Your task to perform on an android device: Search for Mexican restaurants on Maps Image 0: 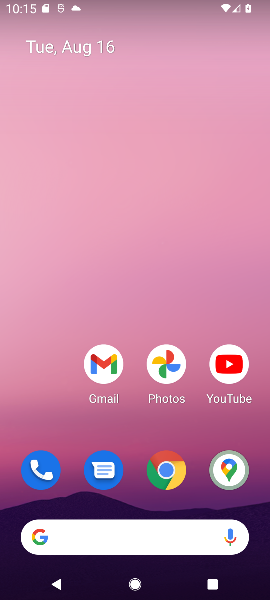
Step 0: drag from (59, 388) to (129, 16)
Your task to perform on an android device: Search for Mexican restaurants on Maps Image 1: 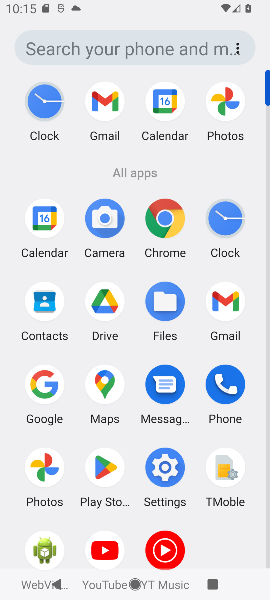
Step 1: click (102, 381)
Your task to perform on an android device: Search for Mexican restaurants on Maps Image 2: 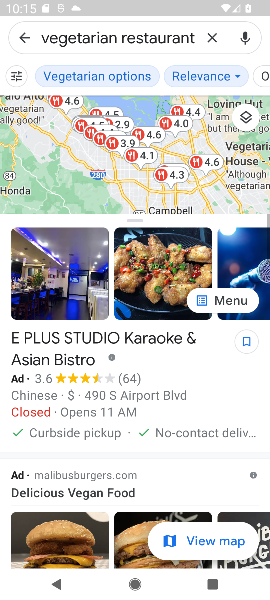
Step 2: click (213, 35)
Your task to perform on an android device: Search for Mexican restaurants on Maps Image 3: 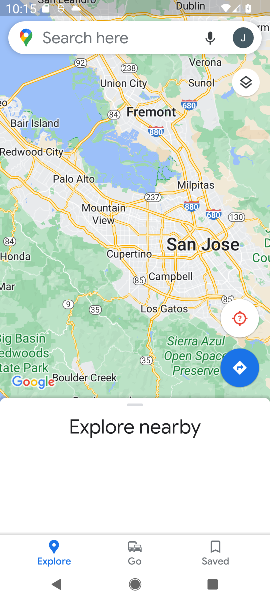
Step 3: click (143, 40)
Your task to perform on an android device: Search for Mexican restaurants on Maps Image 4: 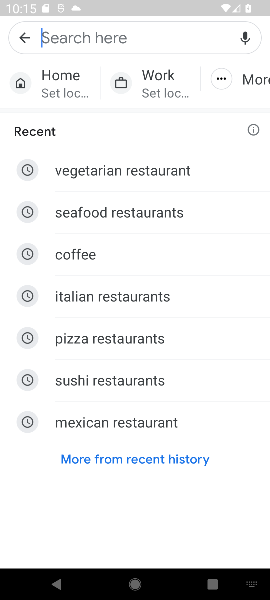
Step 4: click (108, 422)
Your task to perform on an android device: Search for Mexican restaurants on Maps Image 5: 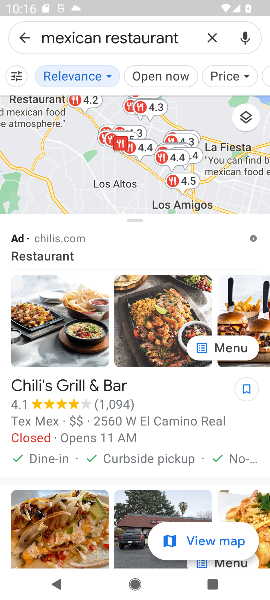
Step 5: task complete